Your task to perform on an android device: add a label to a message in the gmail app Image 0: 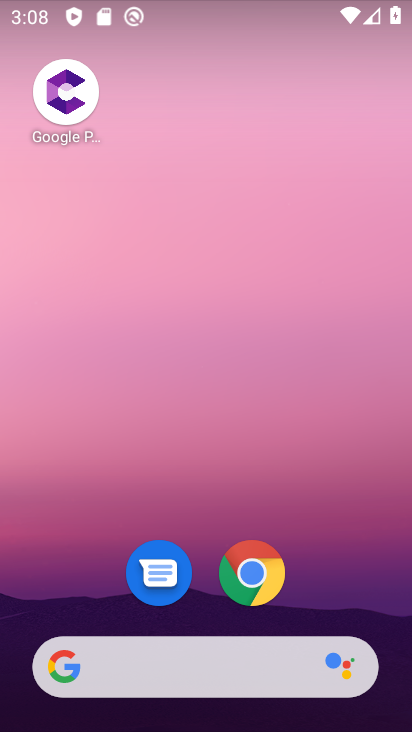
Step 0: click (247, 586)
Your task to perform on an android device: add a label to a message in the gmail app Image 1: 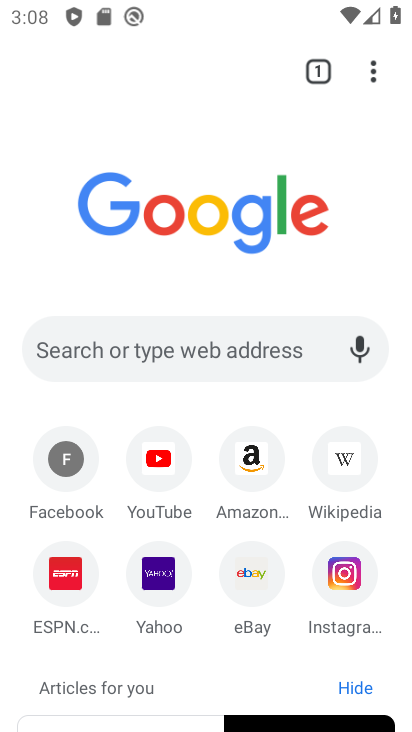
Step 1: click (375, 69)
Your task to perform on an android device: add a label to a message in the gmail app Image 2: 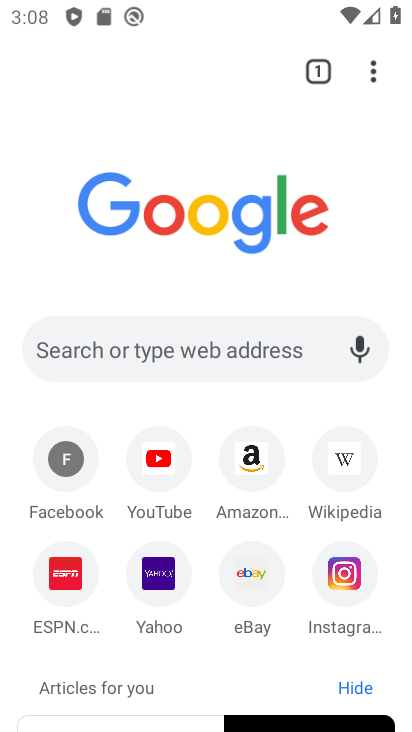
Step 2: click (374, 72)
Your task to perform on an android device: add a label to a message in the gmail app Image 3: 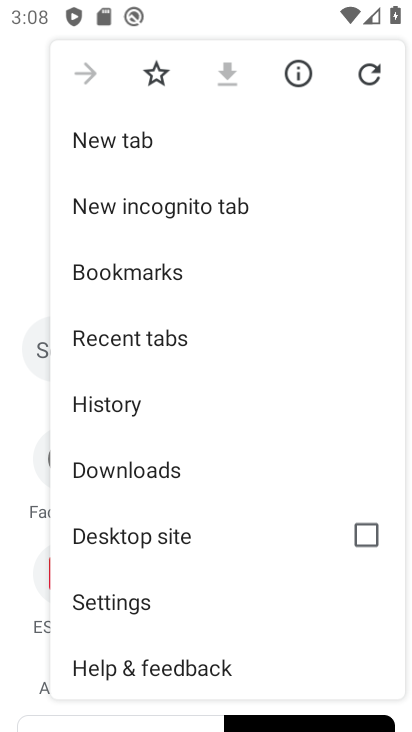
Step 3: click (110, 596)
Your task to perform on an android device: add a label to a message in the gmail app Image 4: 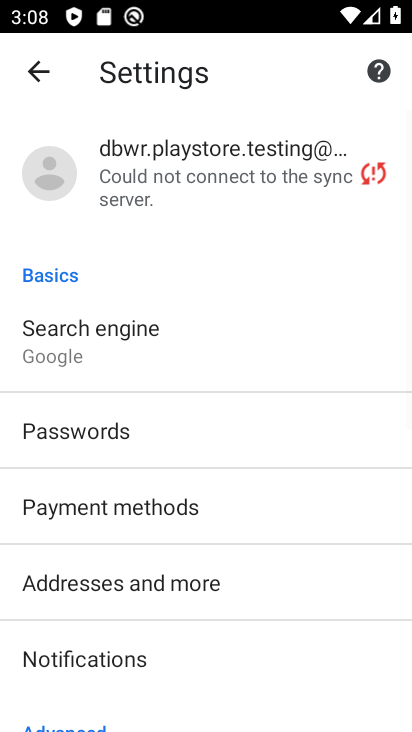
Step 4: drag from (227, 696) to (209, 435)
Your task to perform on an android device: add a label to a message in the gmail app Image 5: 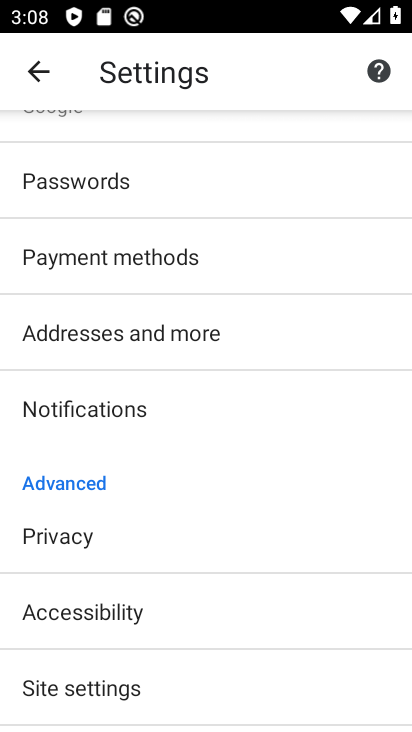
Step 5: click (59, 532)
Your task to perform on an android device: add a label to a message in the gmail app Image 6: 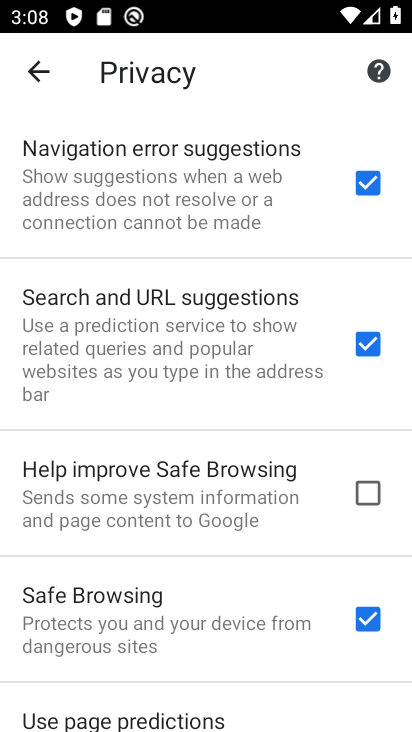
Step 6: press home button
Your task to perform on an android device: add a label to a message in the gmail app Image 7: 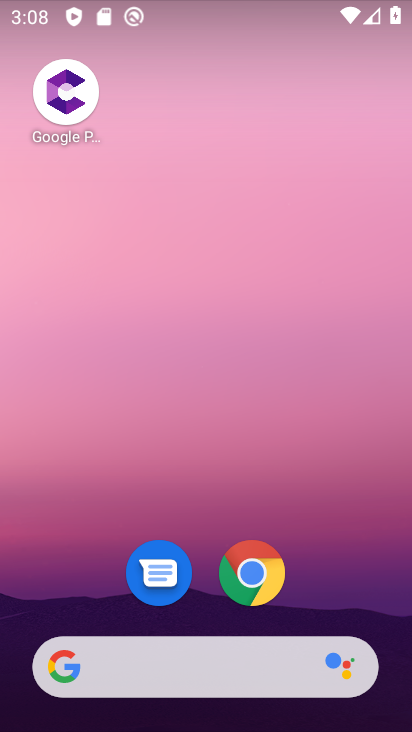
Step 7: drag from (391, 643) to (354, 233)
Your task to perform on an android device: add a label to a message in the gmail app Image 8: 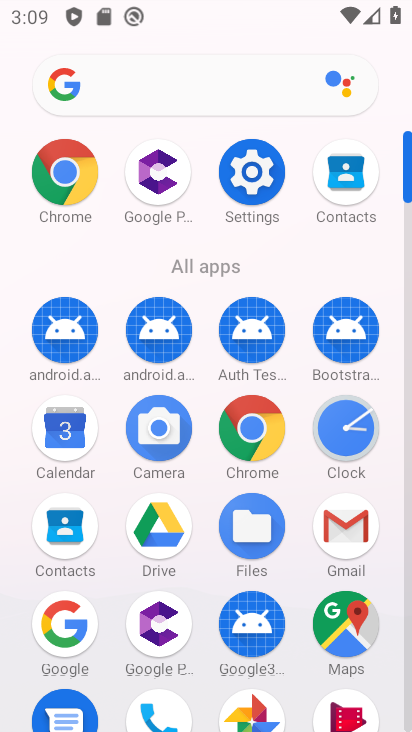
Step 8: click (331, 520)
Your task to perform on an android device: add a label to a message in the gmail app Image 9: 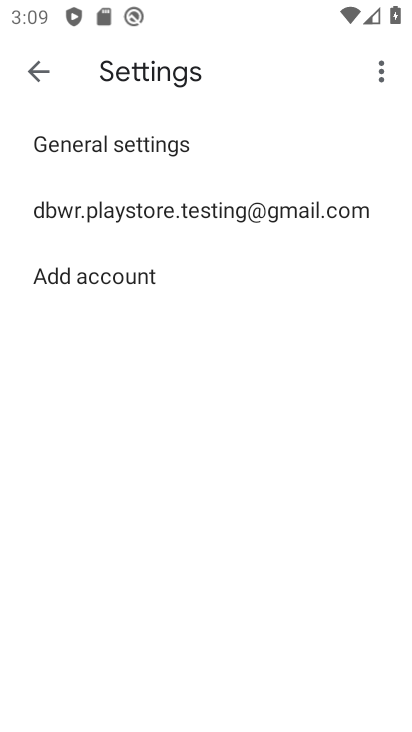
Step 9: click (94, 138)
Your task to perform on an android device: add a label to a message in the gmail app Image 10: 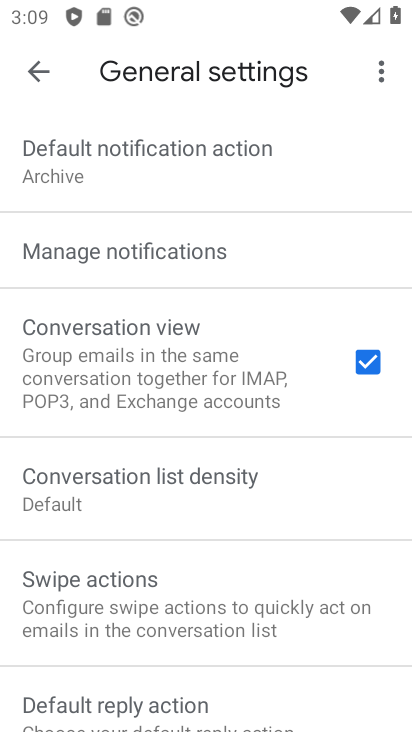
Step 10: click (33, 65)
Your task to perform on an android device: add a label to a message in the gmail app Image 11: 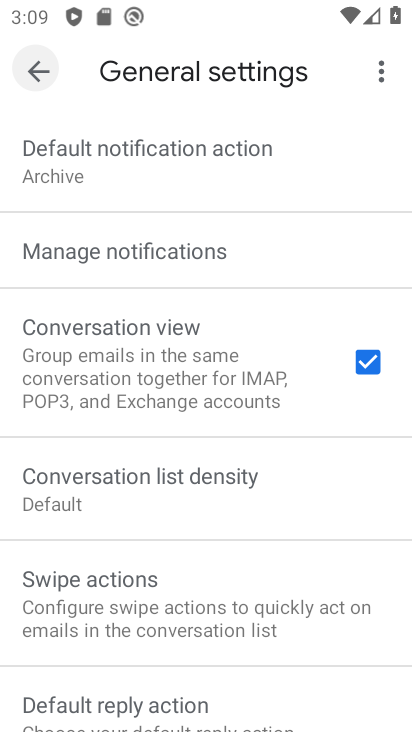
Step 11: click (33, 65)
Your task to perform on an android device: add a label to a message in the gmail app Image 12: 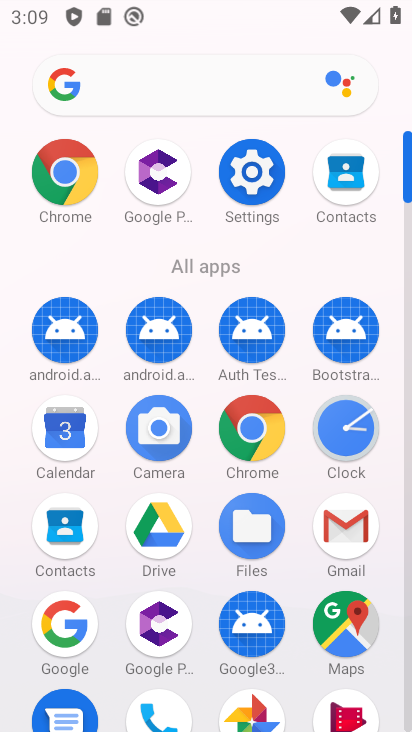
Step 12: click (340, 511)
Your task to perform on an android device: add a label to a message in the gmail app Image 13: 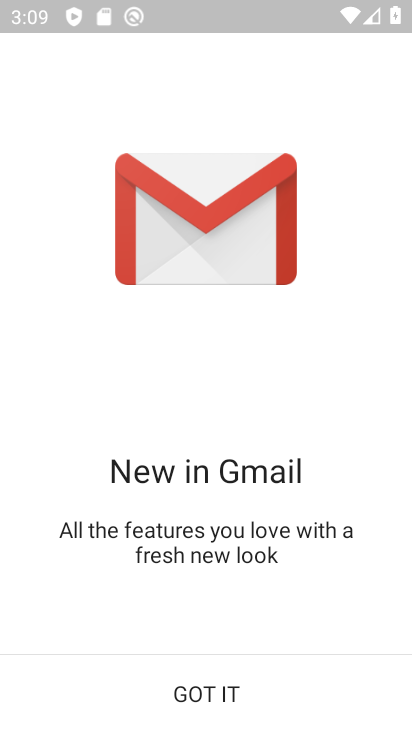
Step 13: click (215, 693)
Your task to perform on an android device: add a label to a message in the gmail app Image 14: 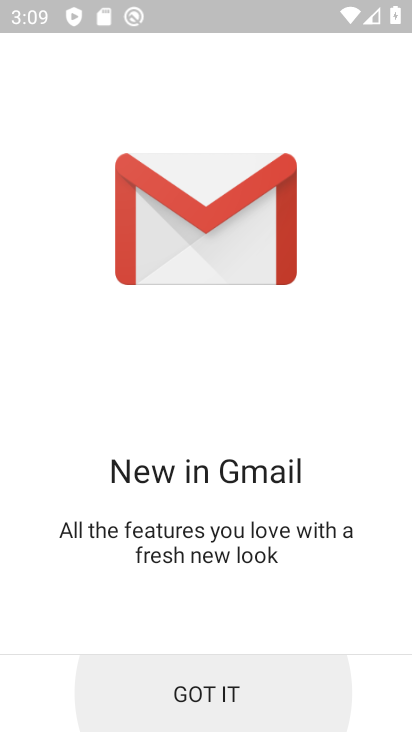
Step 14: click (217, 692)
Your task to perform on an android device: add a label to a message in the gmail app Image 15: 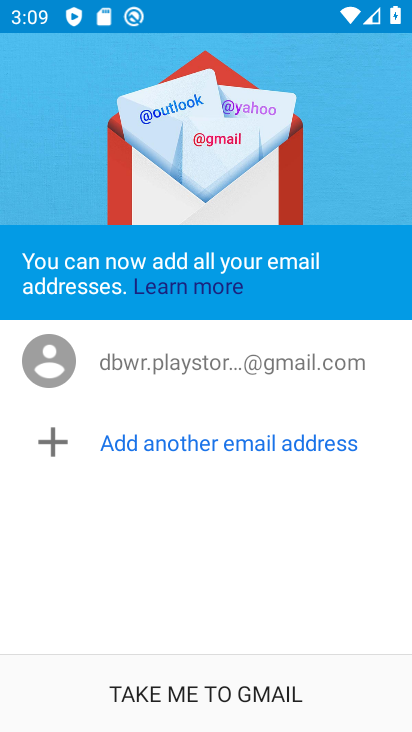
Step 15: click (214, 686)
Your task to perform on an android device: add a label to a message in the gmail app Image 16: 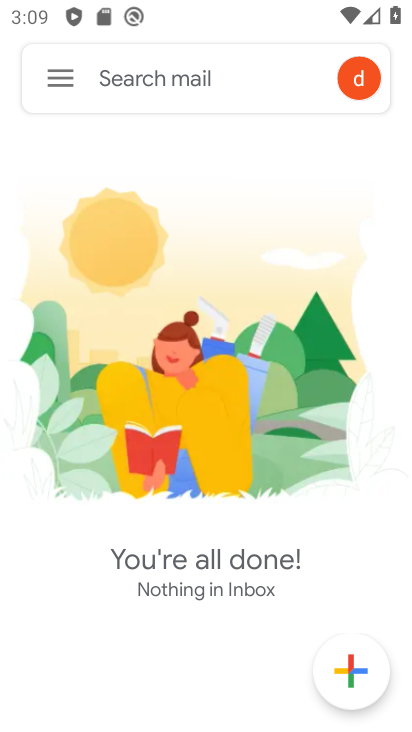
Step 16: click (62, 77)
Your task to perform on an android device: add a label to a message in the gmail app Image 17: 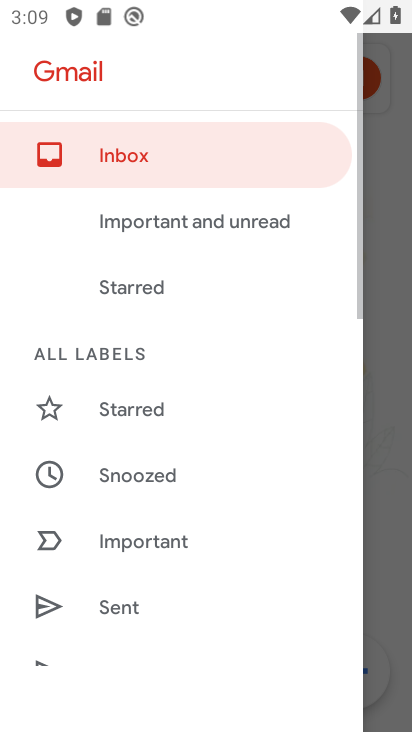
Step 17: click (108, 163)
Your task to perform on an android device: add a label to a message in the gmail app Image 18: 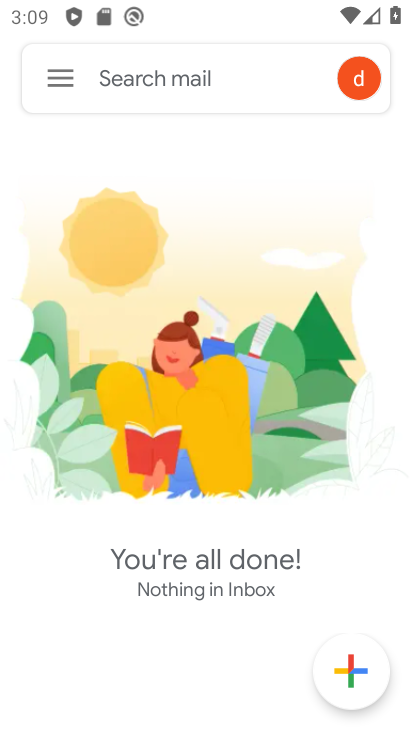
Step 18: task complete